Your task to perform on an android device: What's the weather going to be this weekend? Image 0: 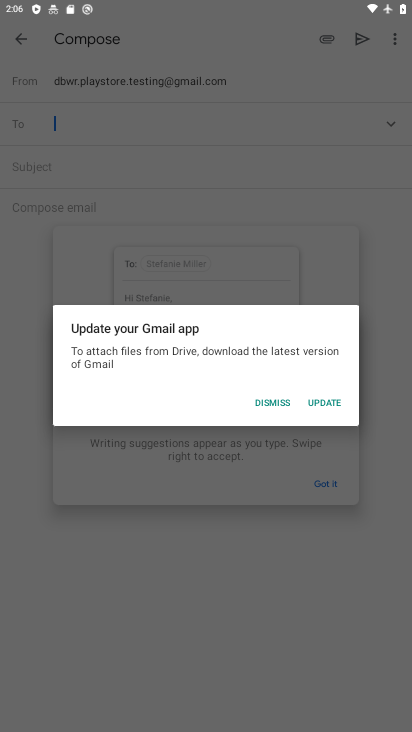
Step 0: press home button
Your task to perform on an android device: What's the weather going to be this weekend? Image 1: 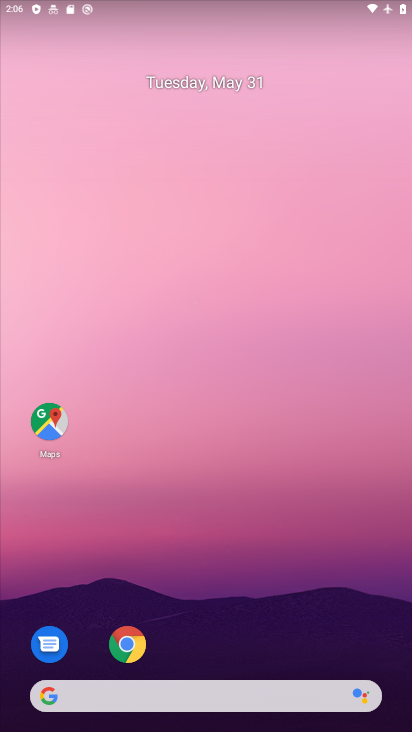
Step 1: drag from (271, 611) to (269, 98)
Your task to perform on an android device: What's the weather going to be this weekend? Image 2: 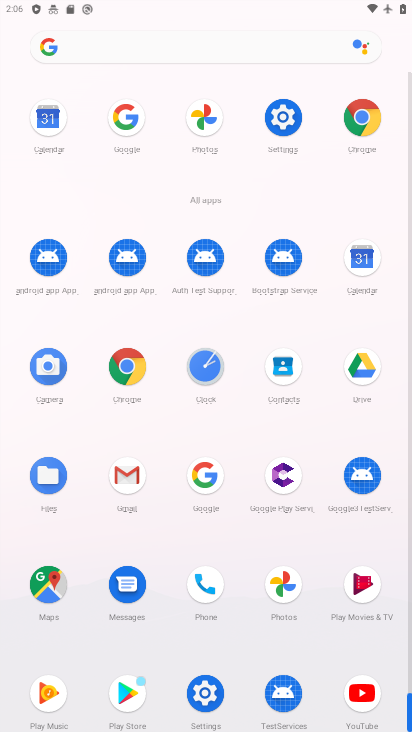
Step 2: click (127, 360)
Your task to perform on an android device: What's the weather going to be this weekend? Image 3: 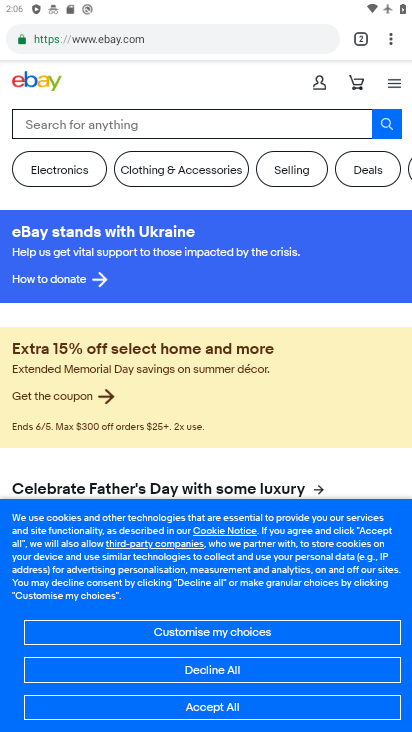
Step 3: click (174, 35)
Your task to perform on an android device: What's the weather going to be this weekend? Image 4: 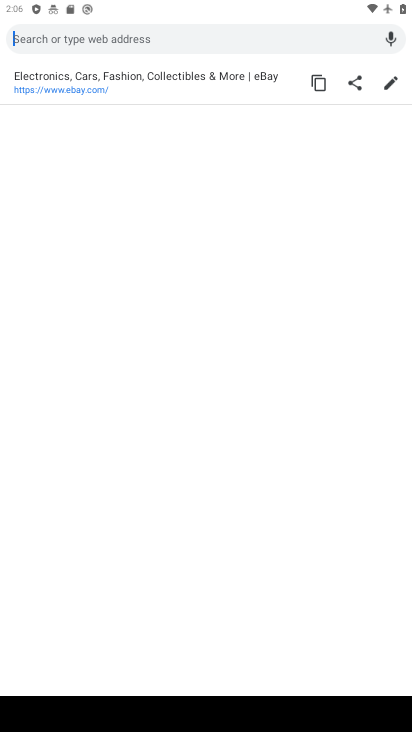
Step 4: type "weather"
Your task to perform on an android device: What's the weather going to be this weekend? Image 5: 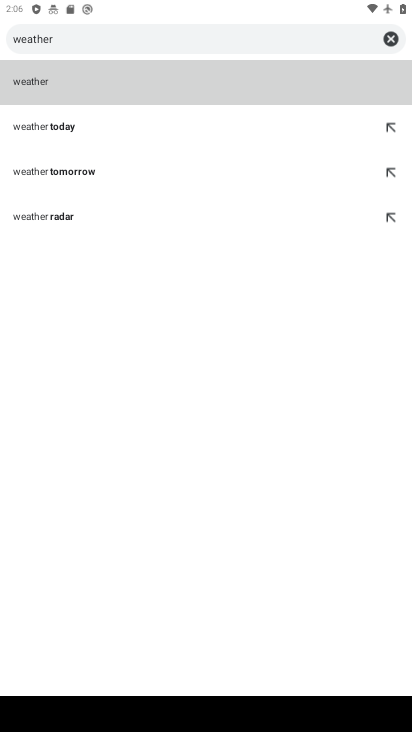
Step 5: click (52, 85)
Your task to perform on an android device: What's the weather going to be this weekend? Image 6: 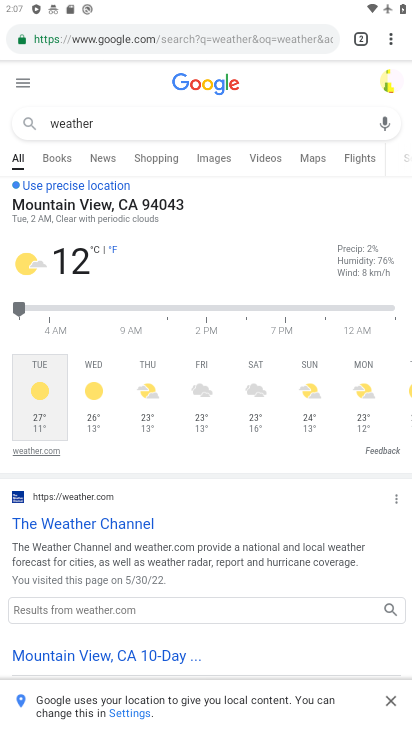
Step 6: click (259, 384)
Your task to perform on an android device: What's the weather going to be this weekend? Image 7: 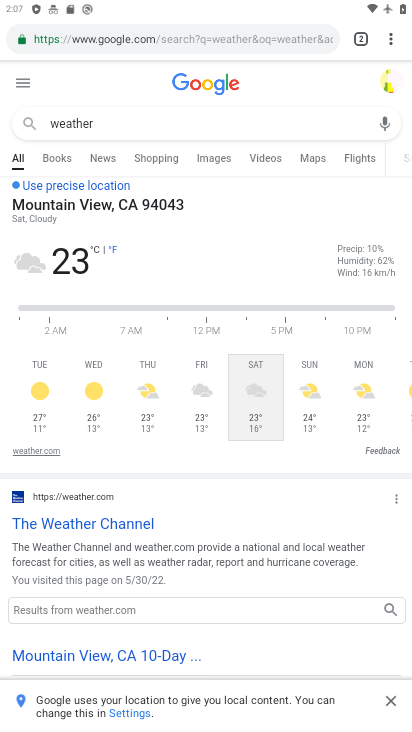
Step 7: task complete